Your task to perform on an android device: delete a single message in the gmail app Image 0: 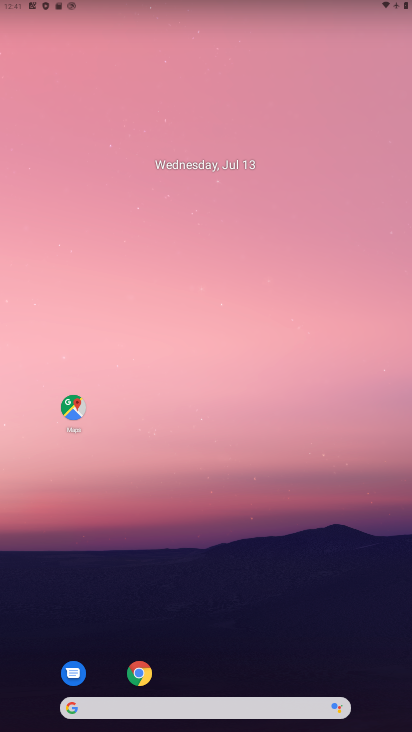
Step 0: drag from (235, 644) to (243, 149)
Your task to perform on an android device: delete a single message in the gmail app Image 1: 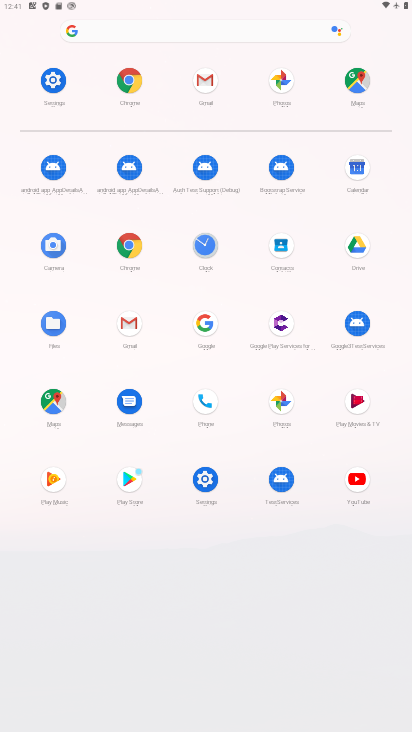
Step 1: click (216, 86)
Your task to perform on an android device: delete a single message in the gmail app Image 2: 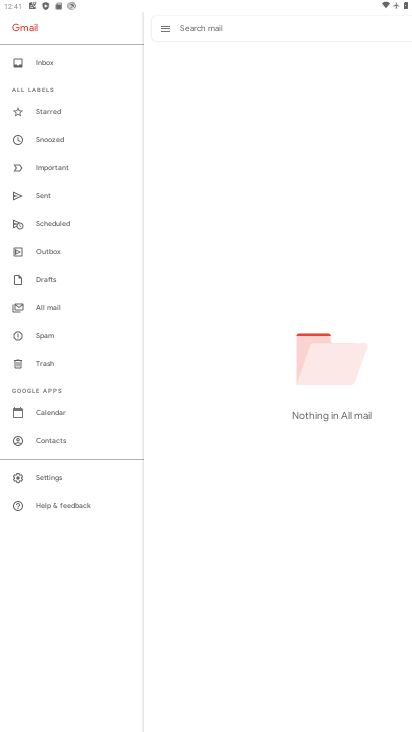
Step 2: click (50, 306)
Your task to perform on an android device: delete a single message in the gmail app Image 3: 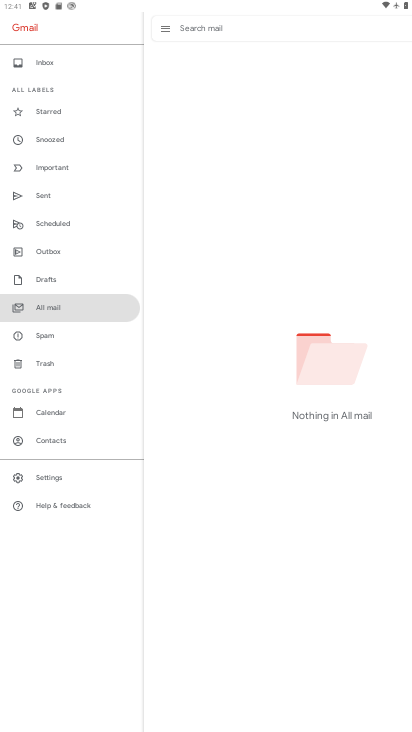
Step 3: task complete